Your task to perform on an android device: Open Chrome and go to settings Image 0: 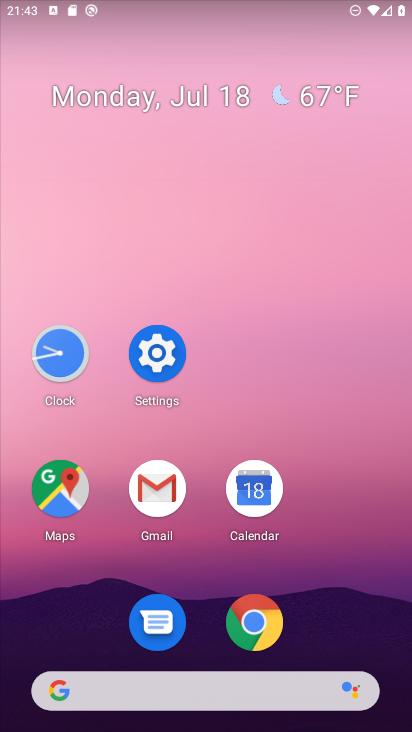
Step 0: click (258, 627)
Your task to perform on an android device: Open Chrome and go to settings Image 1: 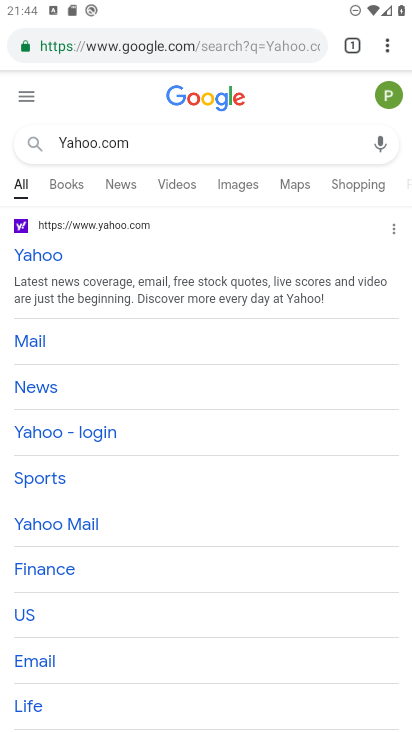
Step 1: click (391, 42)
Your task to perform on an android device: Open Chrome and go to settings Image 2: 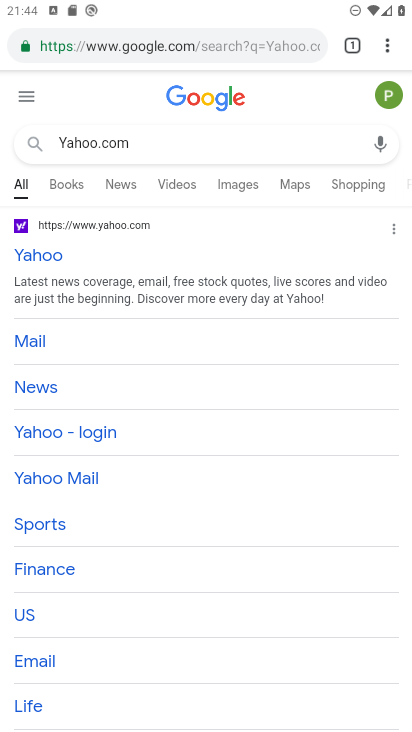
Step 2: click (383, 41)
Your task to perform on an android device: Open Chrome and go to settings Image 3: 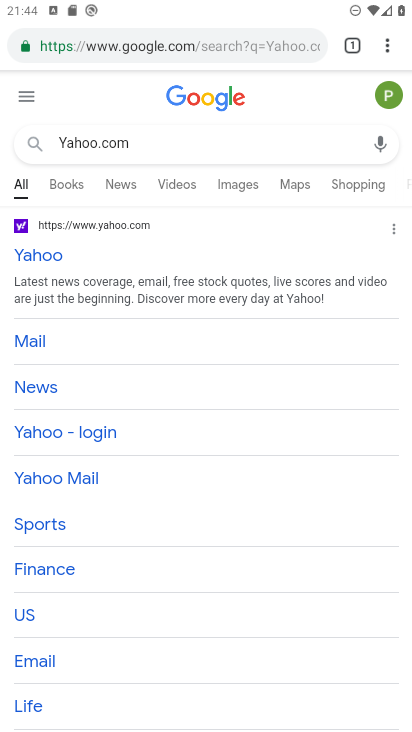
Step 3: click (384, 48)
Your task to perform on an android device: Open Chrome and go to settings Image 4: 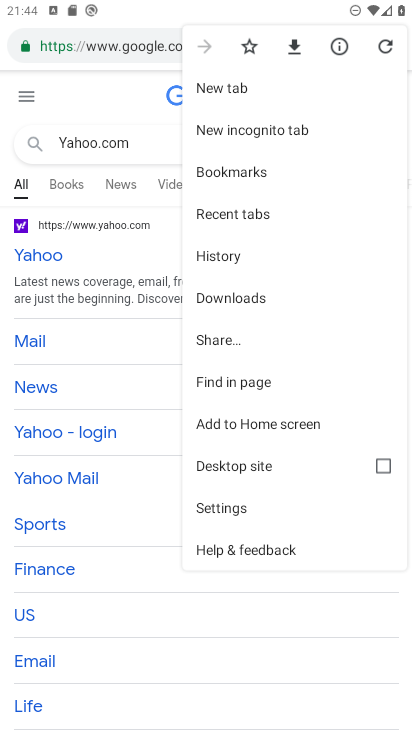
Step 4: click (223, 503)
Your task to perform on an android device: Open Chrome and go to settings Image 5: 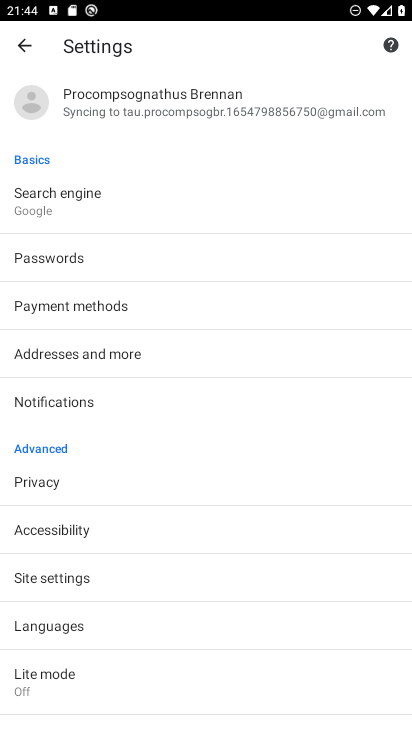
Step 5: task complete